Your task to perform on an android device: Search for sushi restaurants on Maps Image 0: 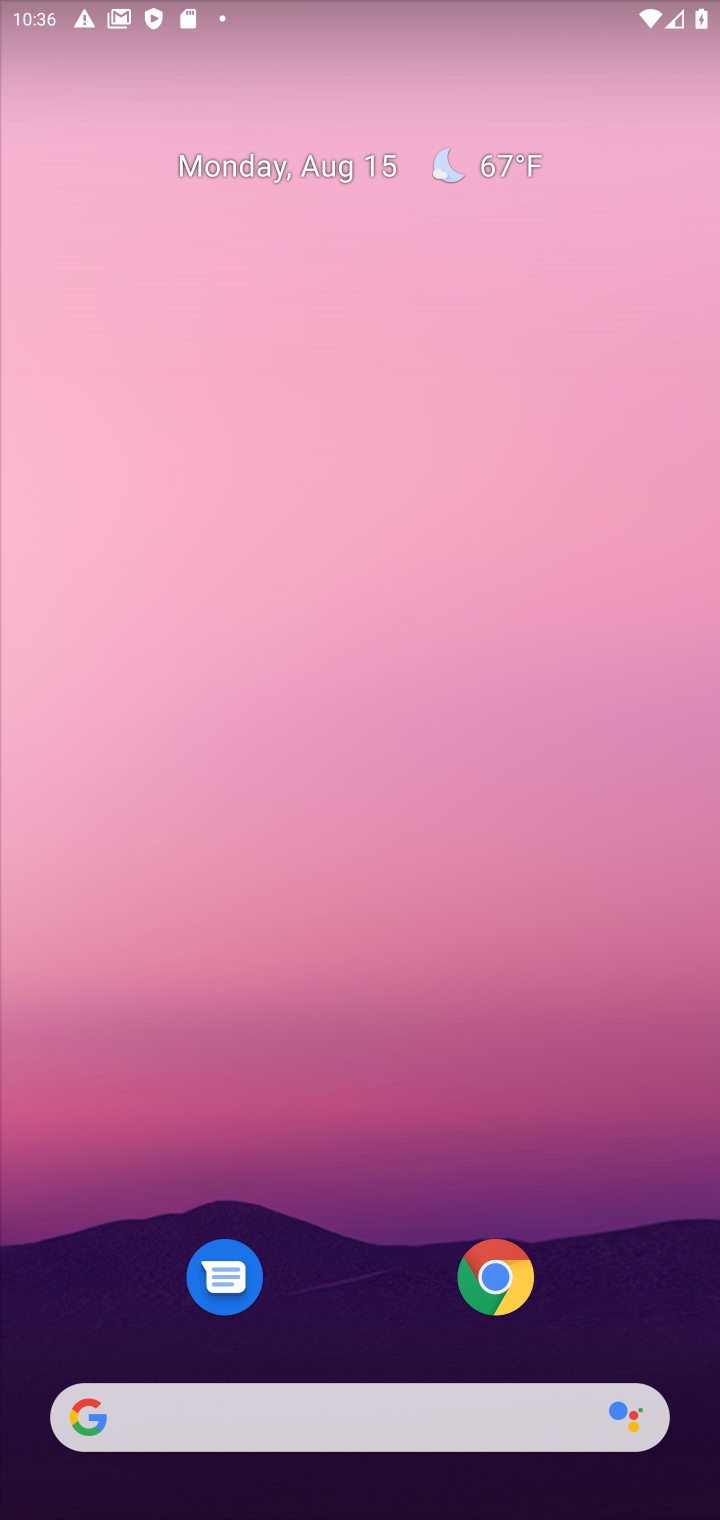
Step 0: drag from (330, 1415) to (526, 68)
Your task to perform on an android device: Search for sushi restaurants on Maps Image 1: 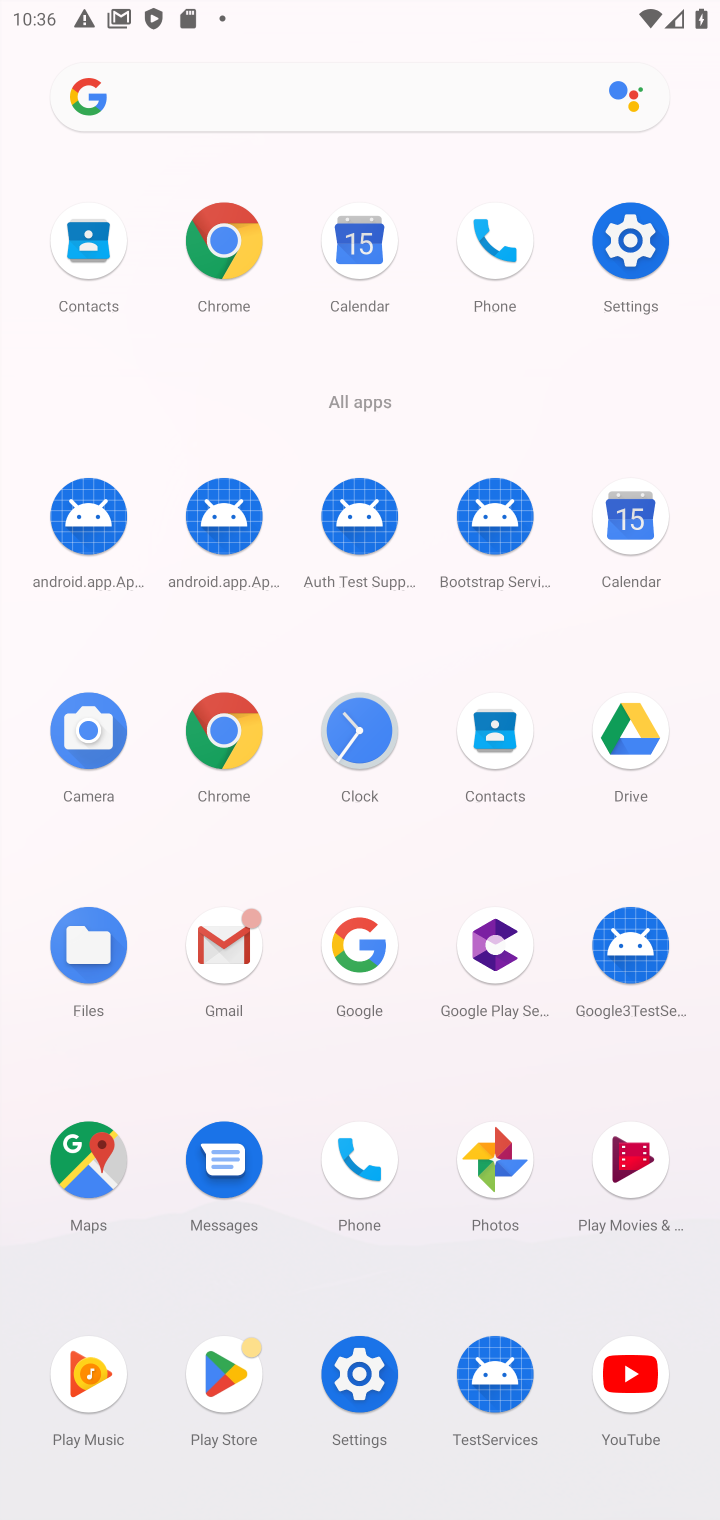
Step 1: click (93, 1133)
Your task to perform on an android device: Search for sushi restaurants on Maps Image 2: 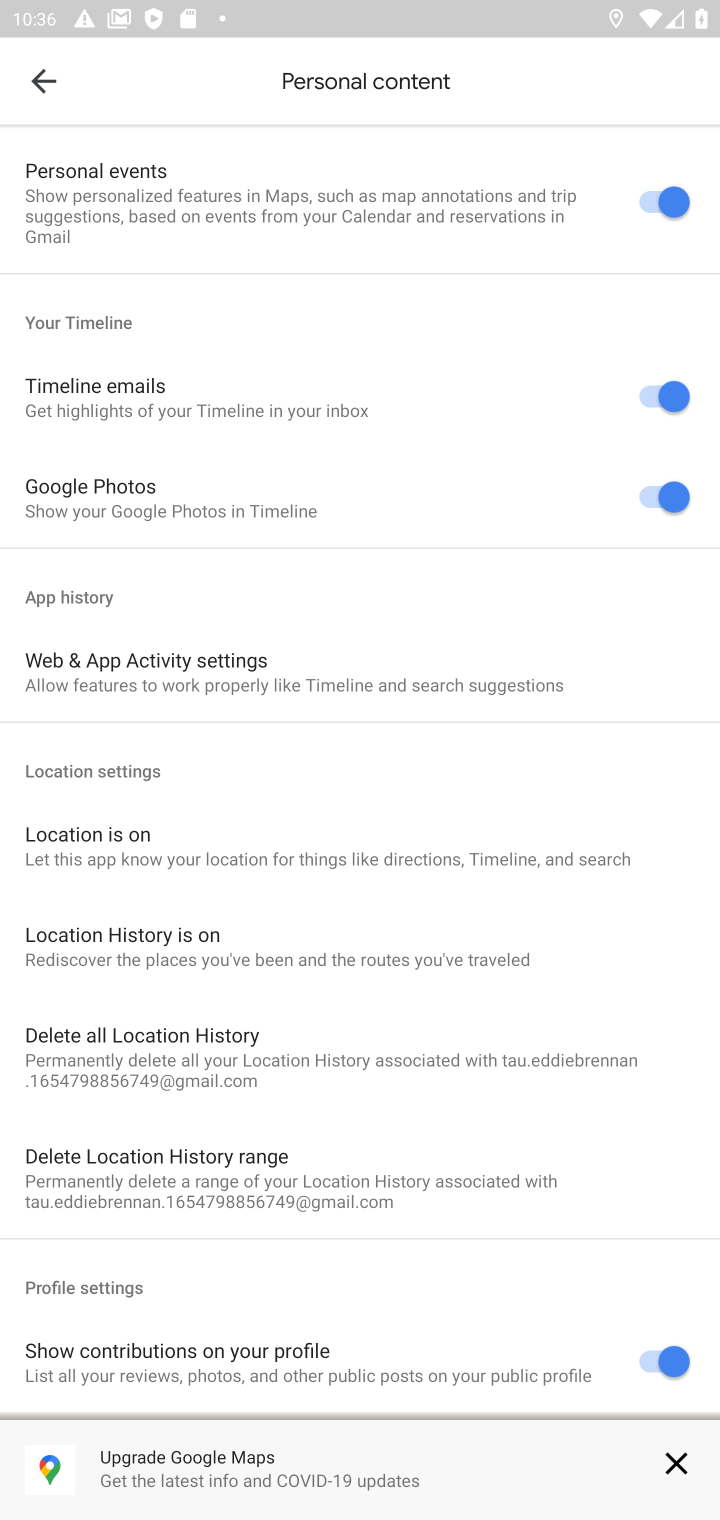
Step 2: click (45, 92)
Your task to perform on an android device: Search for sushi restaurants on Maps Image 3: 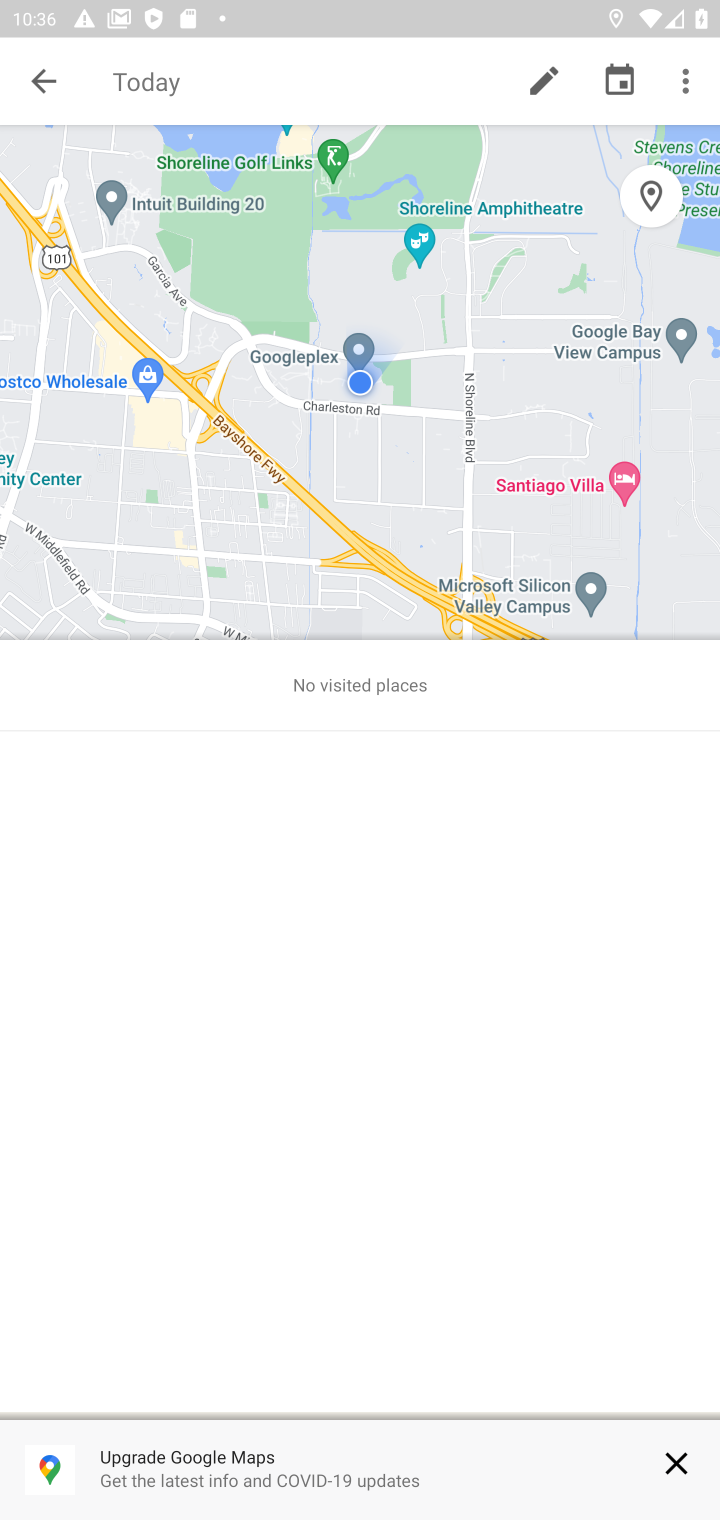
Step 3: click (42, 75)
Your task to perform on an android device: Search for sushi restaurants on Maps Image 4: 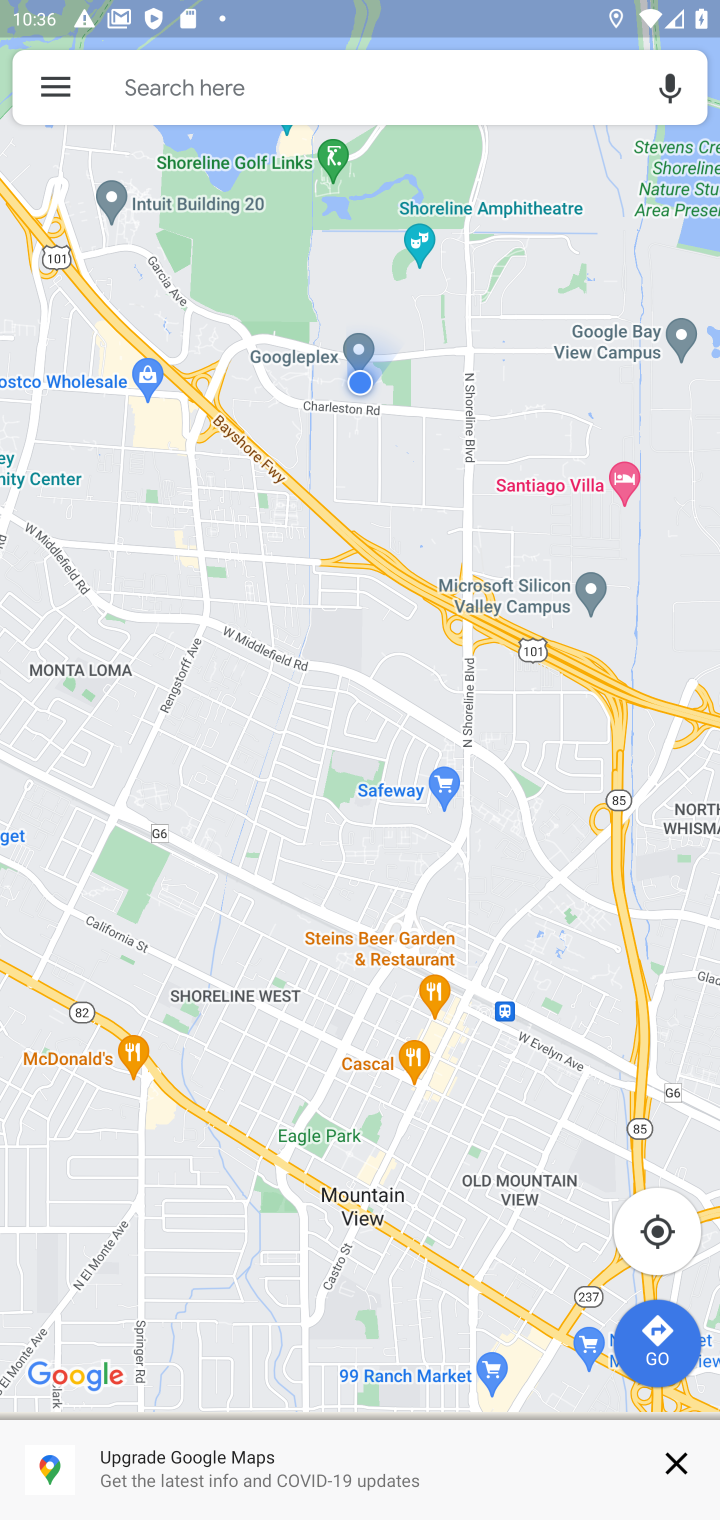
Step 4: click (254, 93)
Your task to perform on an android device: Search for sushi restaurants on Maps Image 5: 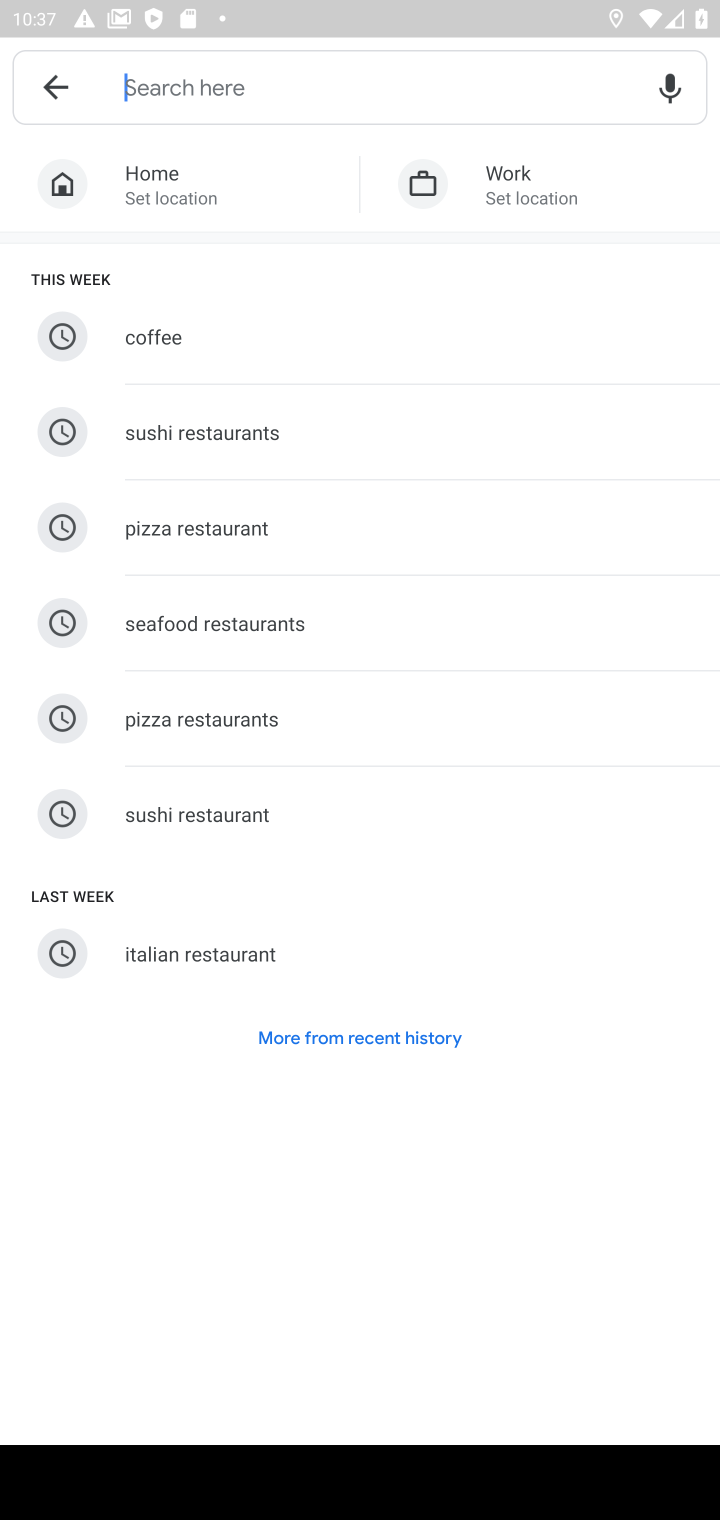
Step 5: click (189, 830)
Your task to perform on an android device: Search for sushi restaurants on Maps Image 6: 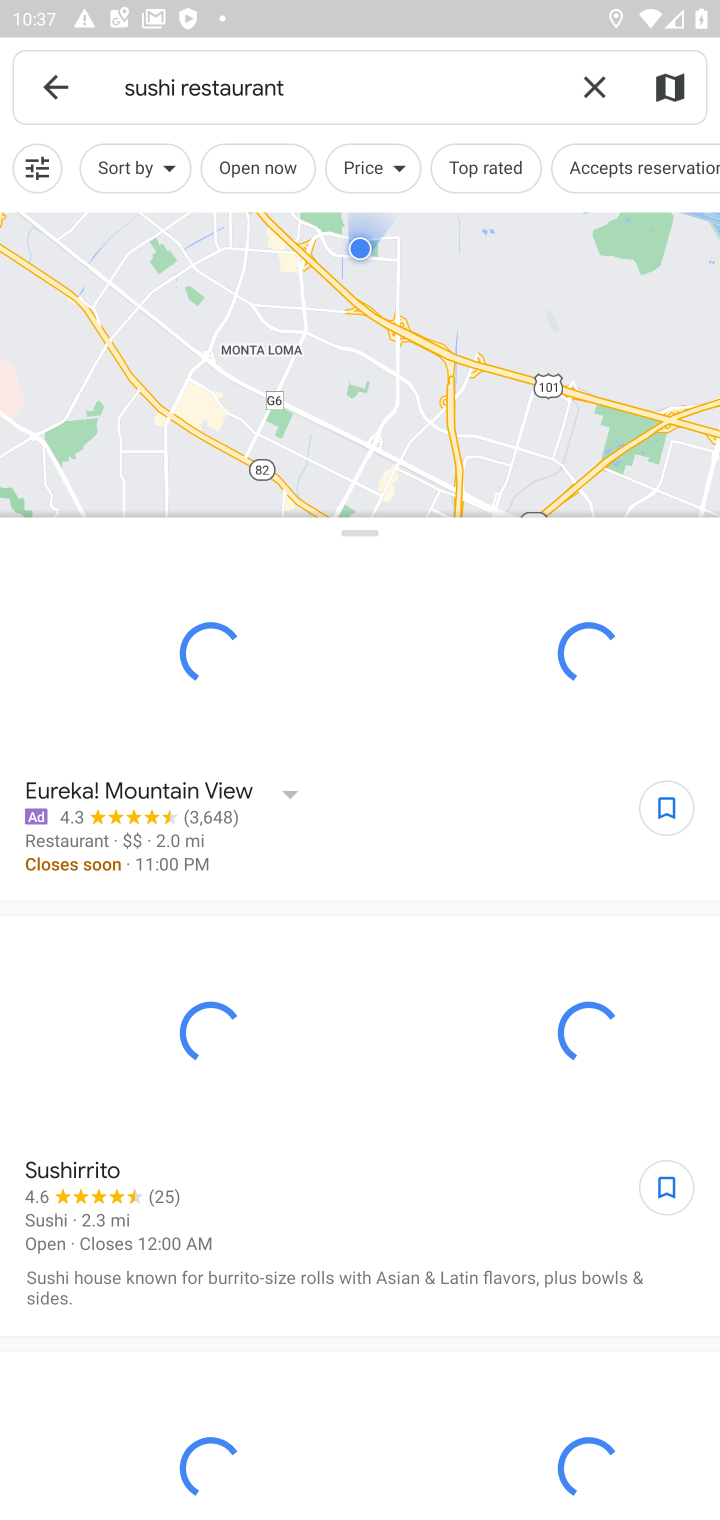
Step 6: task complete